Your task to perform on an android device: set default search engine in the chrome app Image 0: 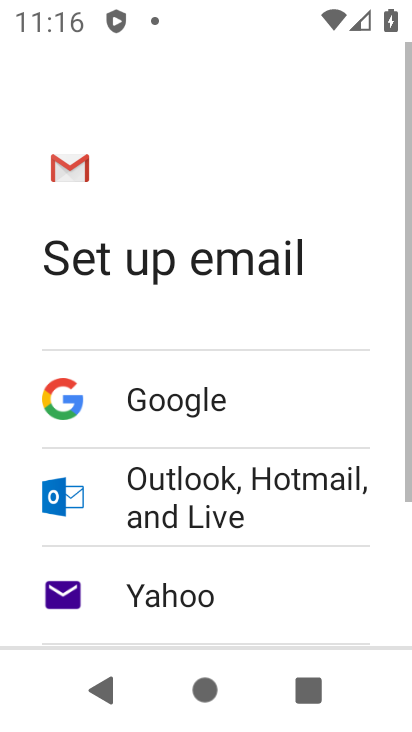
Step 0: press home button
Your task to perform on an android device: set default search engine in the chrome app Image 1: 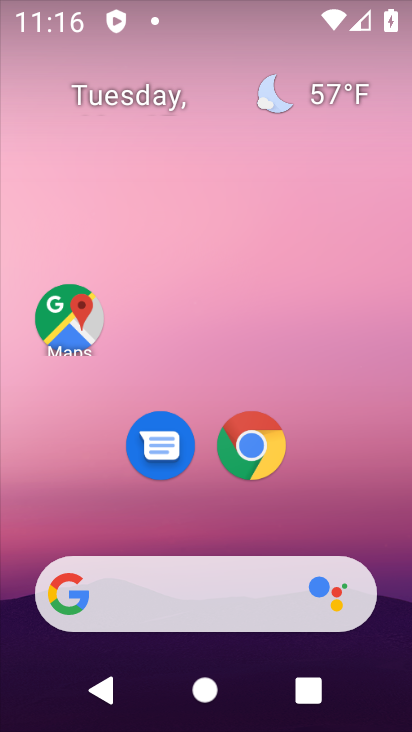
Step 1: drag from (351, 519) to (358, 155)
Your task to perform on an android device: set default search engine in the chrome app Image 2: 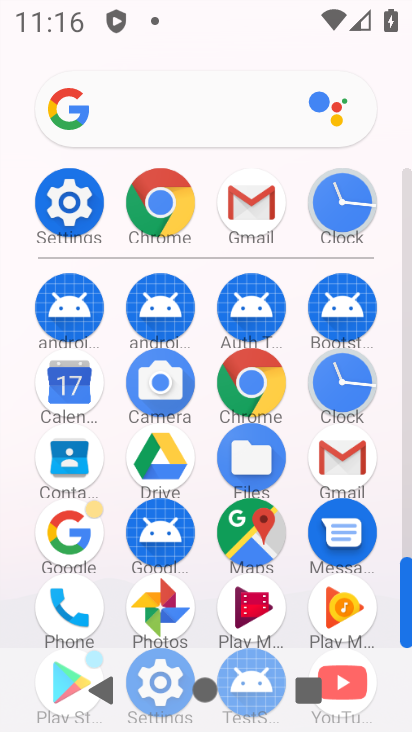
Step 2: click (272, 395)
Your task to perform on an android device: set default search engine in the chrome app Image 3: 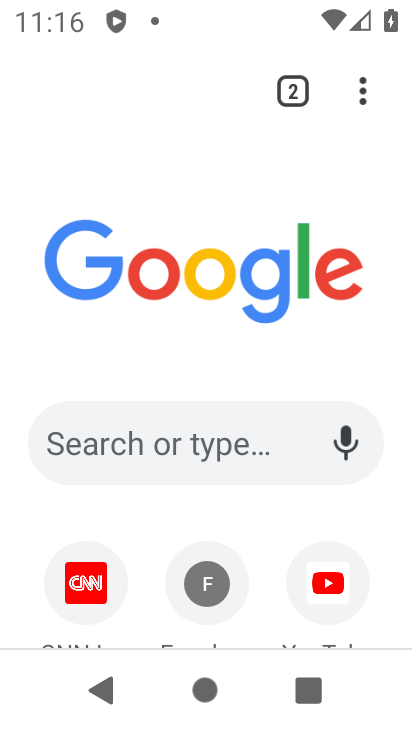
Step 3: click (365, 95)
Your task to perform on an android device: set default search engine in the chrome app Image 4: 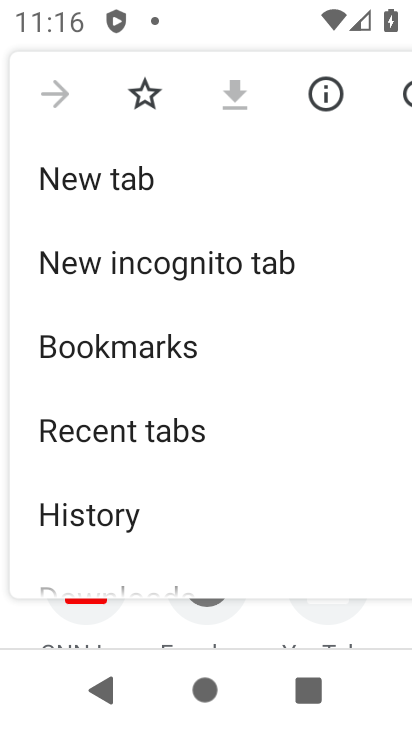
Step 4: drag from (315, 485) to (324, 328)
Your task to perform on an android device: set default search engine in the chrome app Image 5: 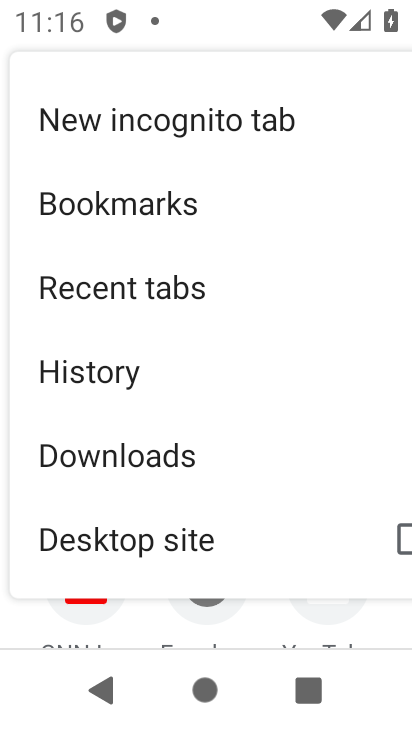
Step 5: drag from (307, 499) to (321, 363)
Your task to perform on an android device: set default search engine in the chrome app Image 6: 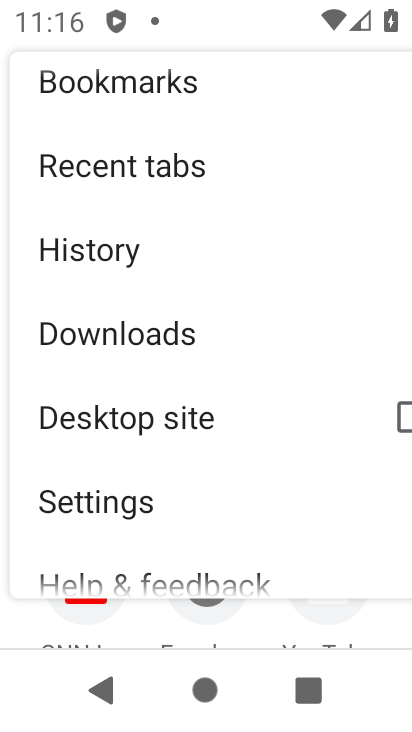
Step 6: drag from (304, 513) to (311, 367)
Your task to perform on an android device: set default search engine in the chrome app Image 7: 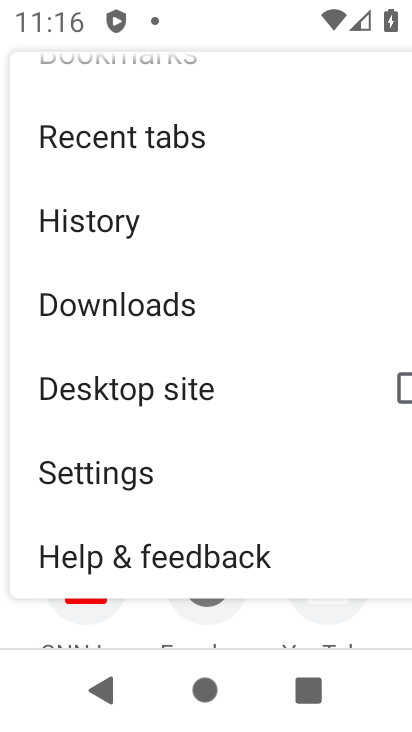
Step 7: click (167, 477)
Your task to perform on an android device: set default search engine in the chrome app Image 8: 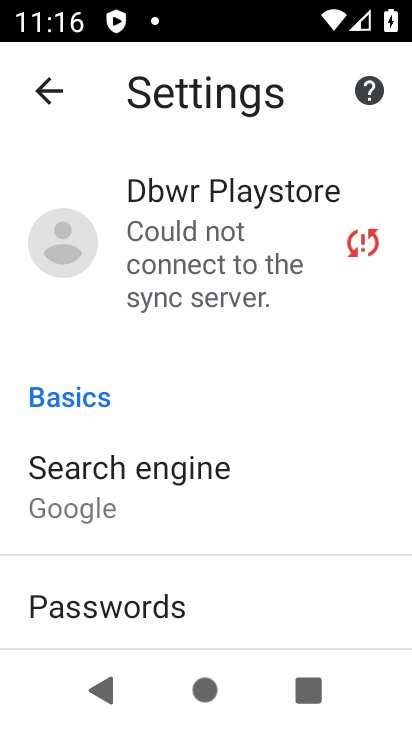
Step 8: drag from (273, 564) to (279, 441)
Your task to perform on an android device: set default search engine in the chrome app Image 9: 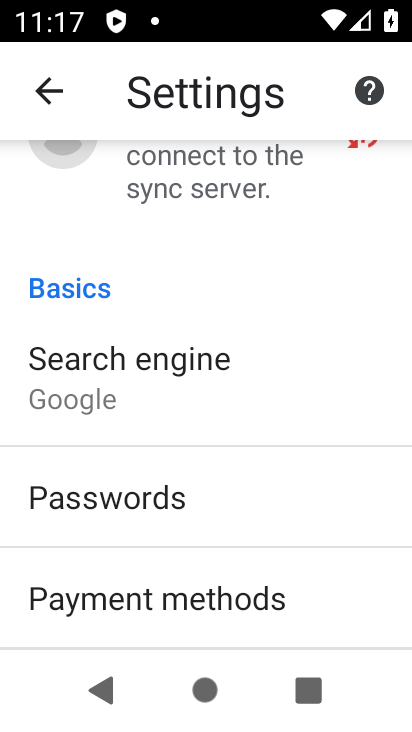
Step 9: drag from (279, 582) to (293, 435)
Your task to perform on an android device: set default search engine in the chrome app Image 10: 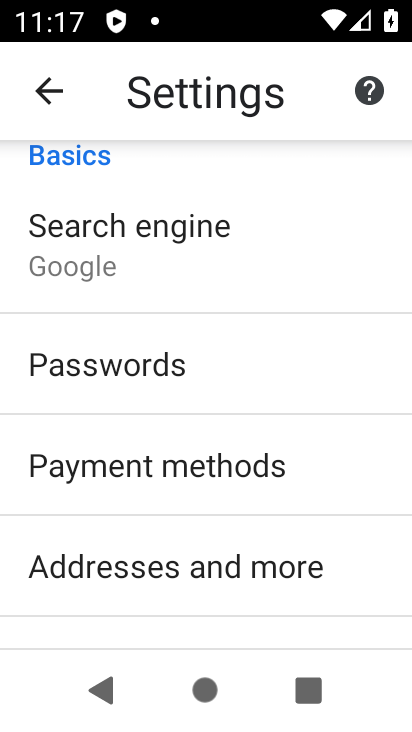
Step 10: drag from (303, 576) to (304, 395)
Your task to perform on an android device: set default search engine in the chrome app Image 11: 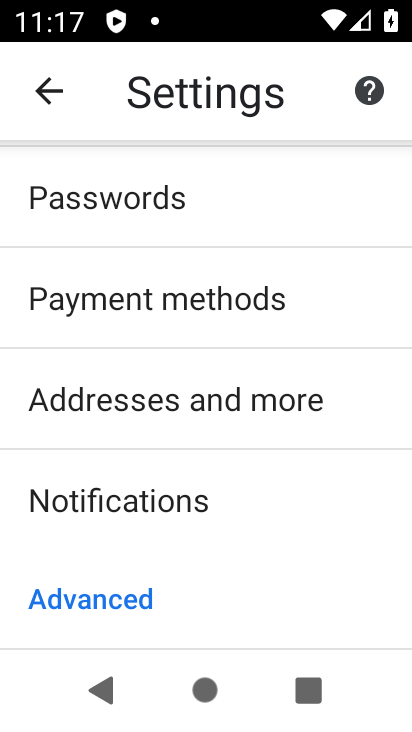
Step 11: drag from (321, 551) to (347, 373)
Your task to perform on an android device: set default search engine in the chrome app Image 12: 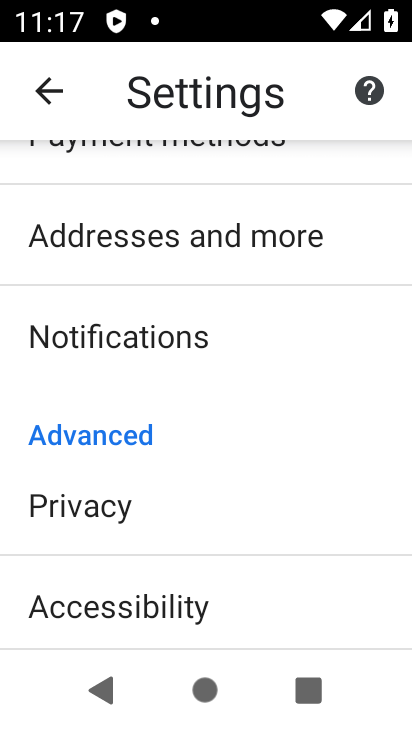
Step 12: drag from (324, 531) to (324, 409)
Your task to perform on an android device: set default search engine in the chrome app Image 13: 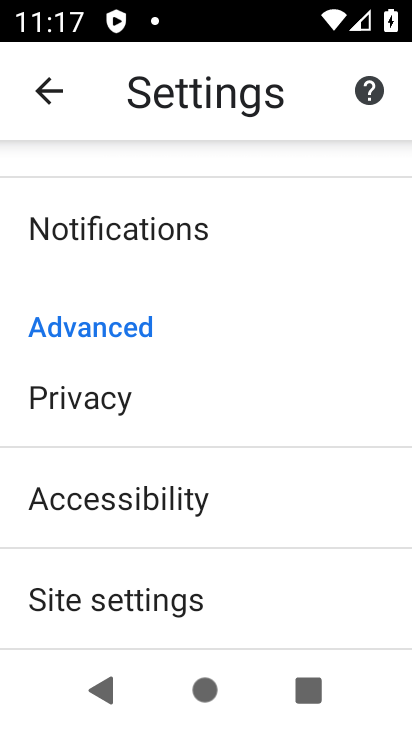
Step 13: drag from (324, 551) to (319, 386)
Your task to perform on an android device: set default search engine in the chrome app Image 14: 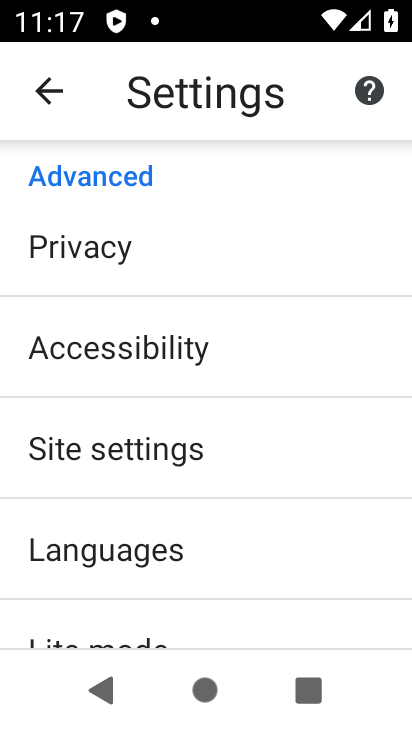
Step 14: drag from (298, 587) to (303, 462)
Your task to perform on an android device: set default search engine in the chrome app Image 15: 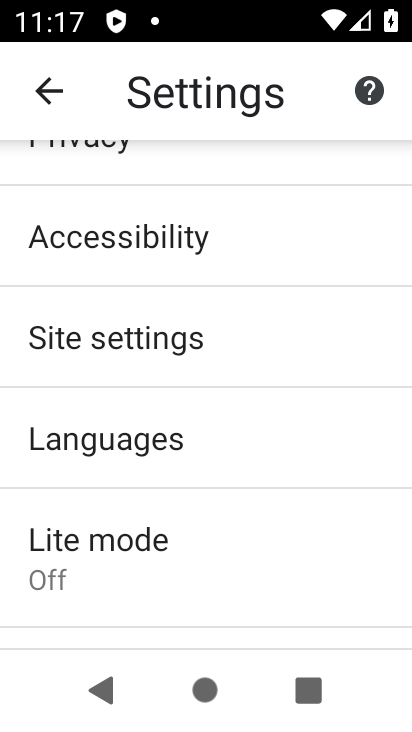
Step 15: drag from (313, 304) to (304, 477)
Your task to perform on an android device: set default search engine in the chrome app Image 16: 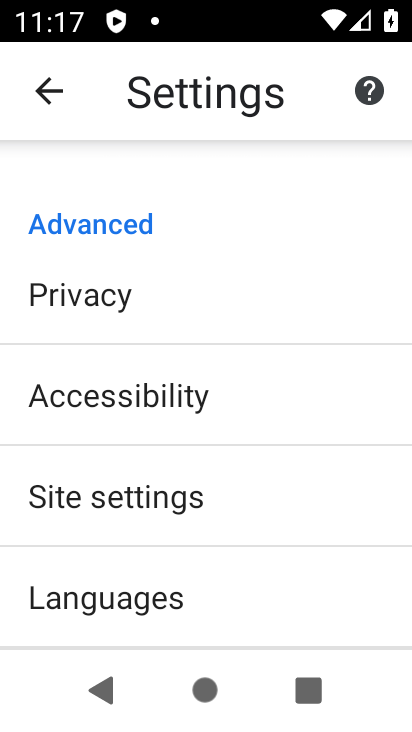
Step 16: drag from (287, 274) to (288, 501)
Your task to perform on an android device: set default search engine in the chrome app Image 17: 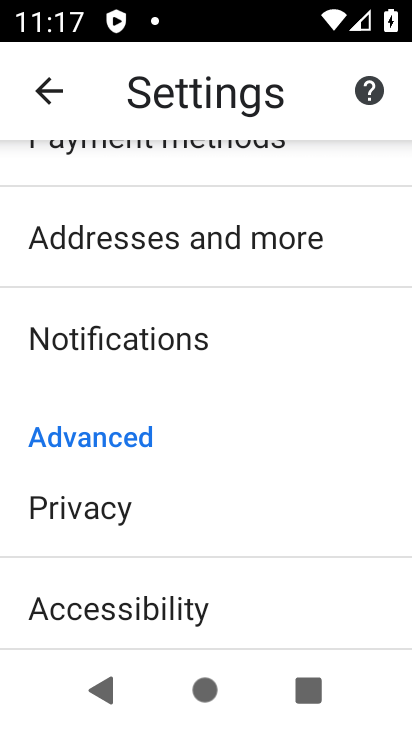
Step 17: drag from (284, 320) to (269, 513)
Your task to perform on an android device: set default search engine in the chrome app Image 18: 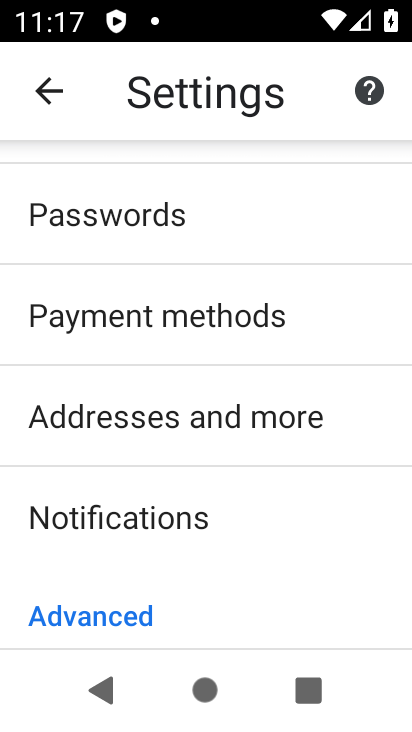
Step 18: drag from (289, 419) to (279, 506)
Your task to perform on an android device: set default search engine in the chrome app Image 19: 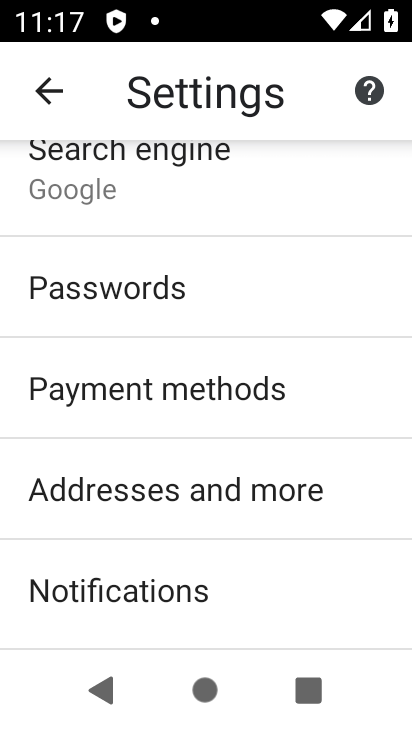
Step 19: drag from (282, 234) to (262, 503)
Your task to perform on an android device: set default search engine in the chrome app Image 20: 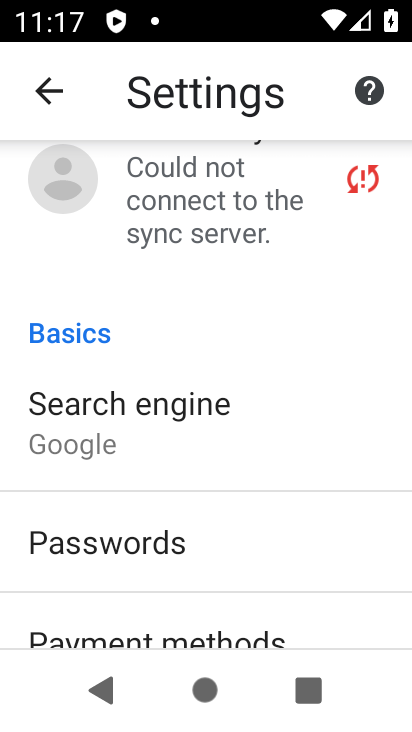
Step 20: click (121, 429)
Your task to perform on an android device: set default search engine in the chrome app Image 21: 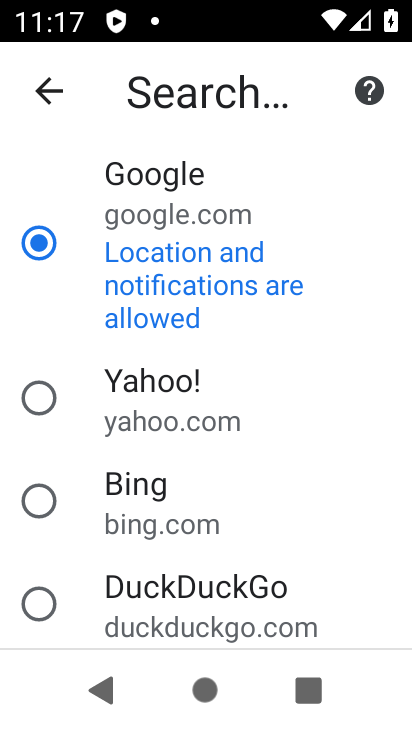
Step 21: click (45, 506)
Your task to perform on an android device: set default search engine in the chrome app Image 22: 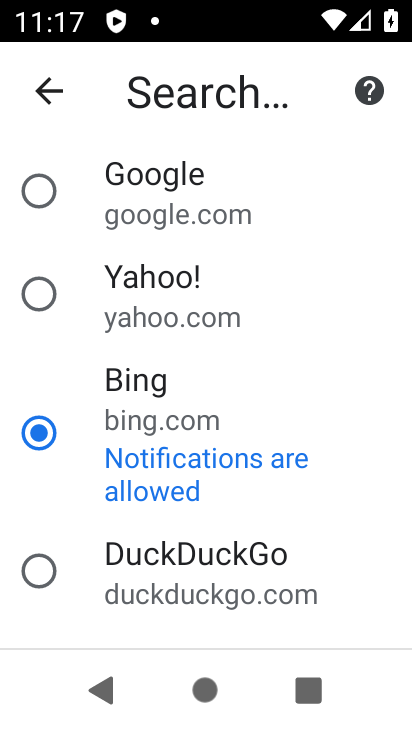
Step 22: task complete